Your task to perform on an android device: Clear the shopping cart on amazon. Search for usb-c to usb-b on amazon, select the first entry, and add it to the cart. Image 0: 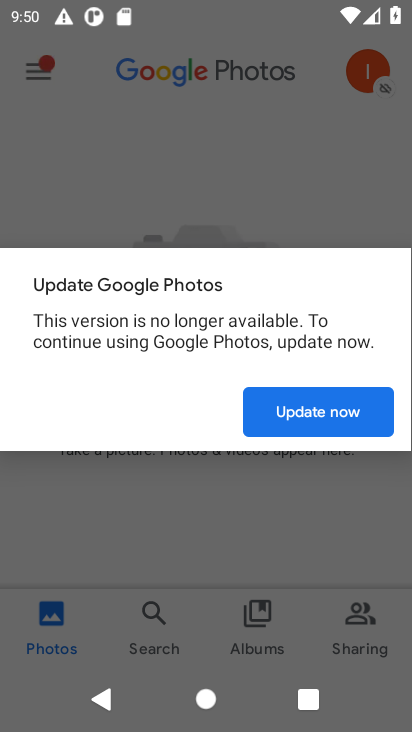
Step 0: press home button
Your task to perform on an android device: Clear the shopping cart on amazon. Search for usb-c to usb-b on amazon, select the first entry, and add it to the cart. Image 1: 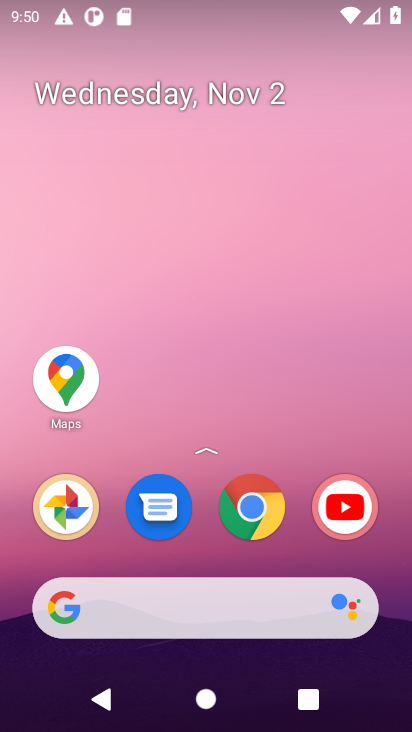
Step 1: click (257, 595)
Your task to perform on an android device: Clear the shopping cart on amazon. Search for usb-c to usb-b on amazon, select the first entry, and add it to the cart. Image 2: 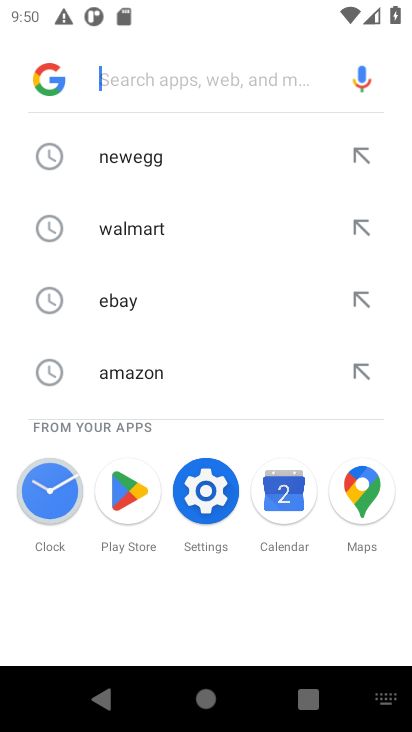
Step 2: click (179, 362)
Your task to perform on an android device: Clear the shopping cart on amazon. Search for usb-c to usb-b on amazon, select the first entry, and add it to the cart. Image 3: 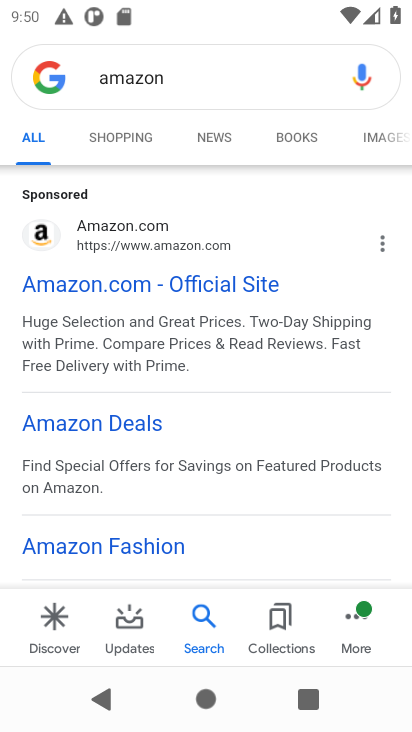
Step 3: click (111, 293)
Your task to perform on an android device: Clear the shopping cart on amazon. Search for usb-c to usb-b on amazon, select the first entry, and add it to the cart. Image 4: 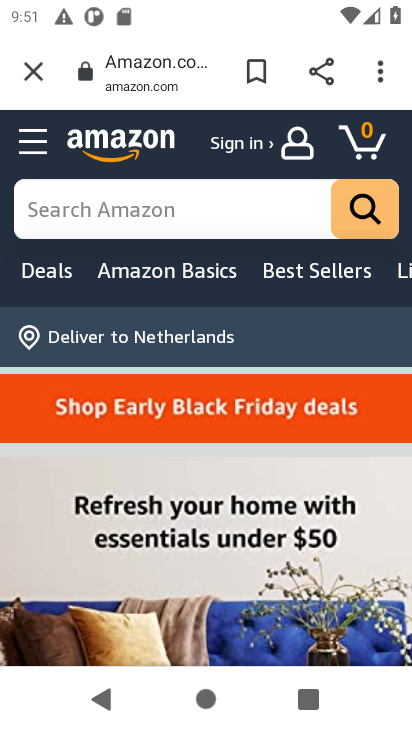
Step 4: click (208, 210)
Your task to perform on an android device: Clear the shopping cart on amazon. Search for usb-c to usb-b on amazon, select the first entry, and add it to the cart. Image 5: 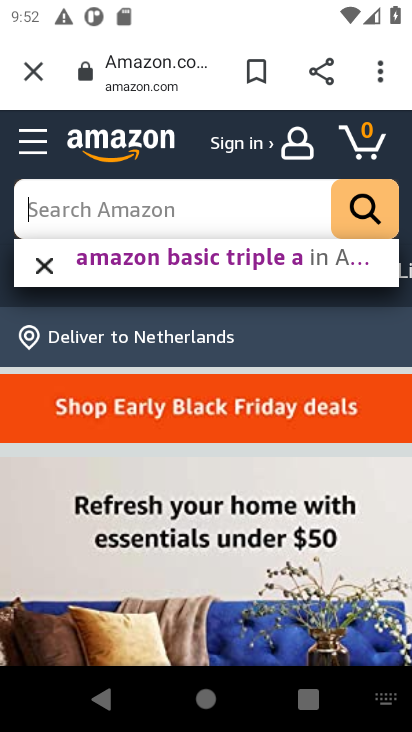
Step 5: task complete